Your task to perform on an android device: Add dell alienware to the cart on target.com Image 0: 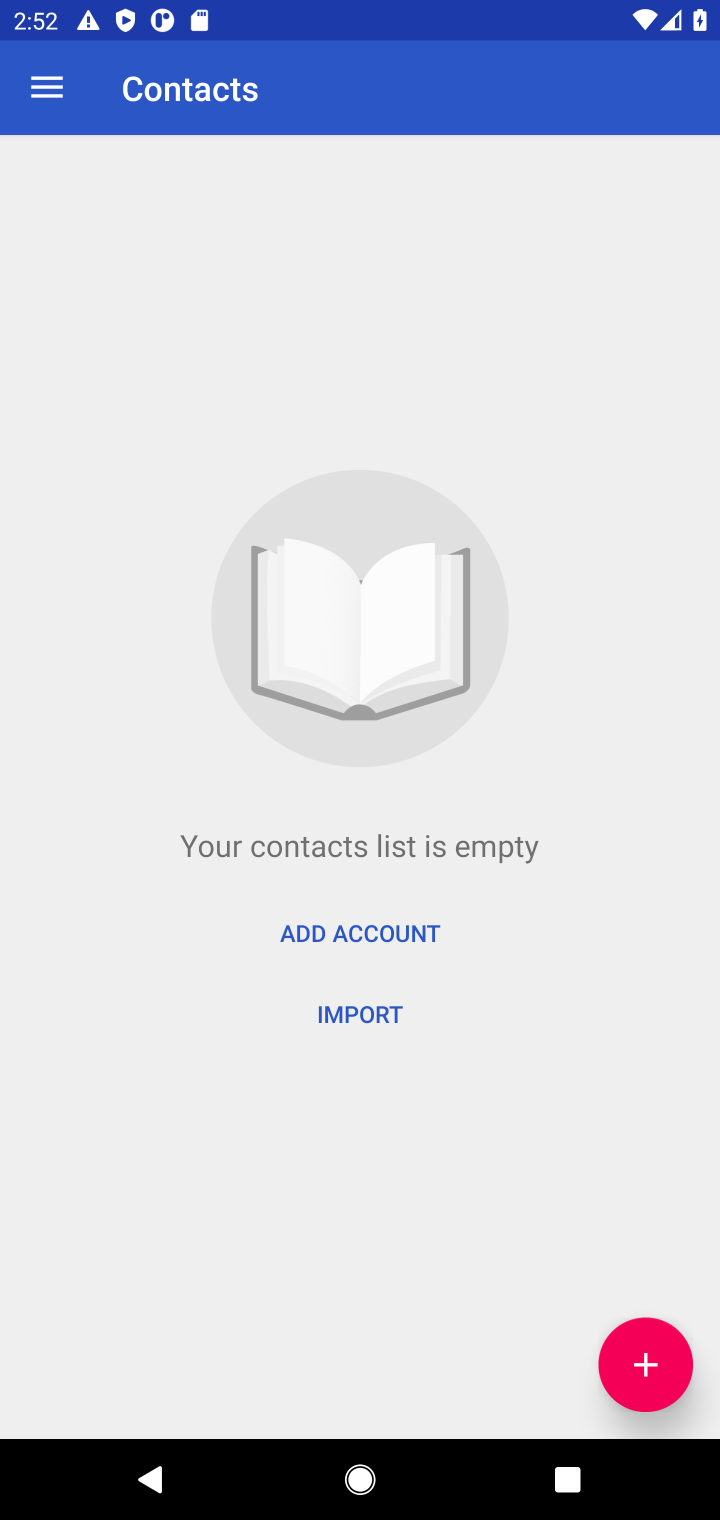
Step 0: press home button
Your task to perform on an android device: Add dell alienware to the cart on target.com Image 1: 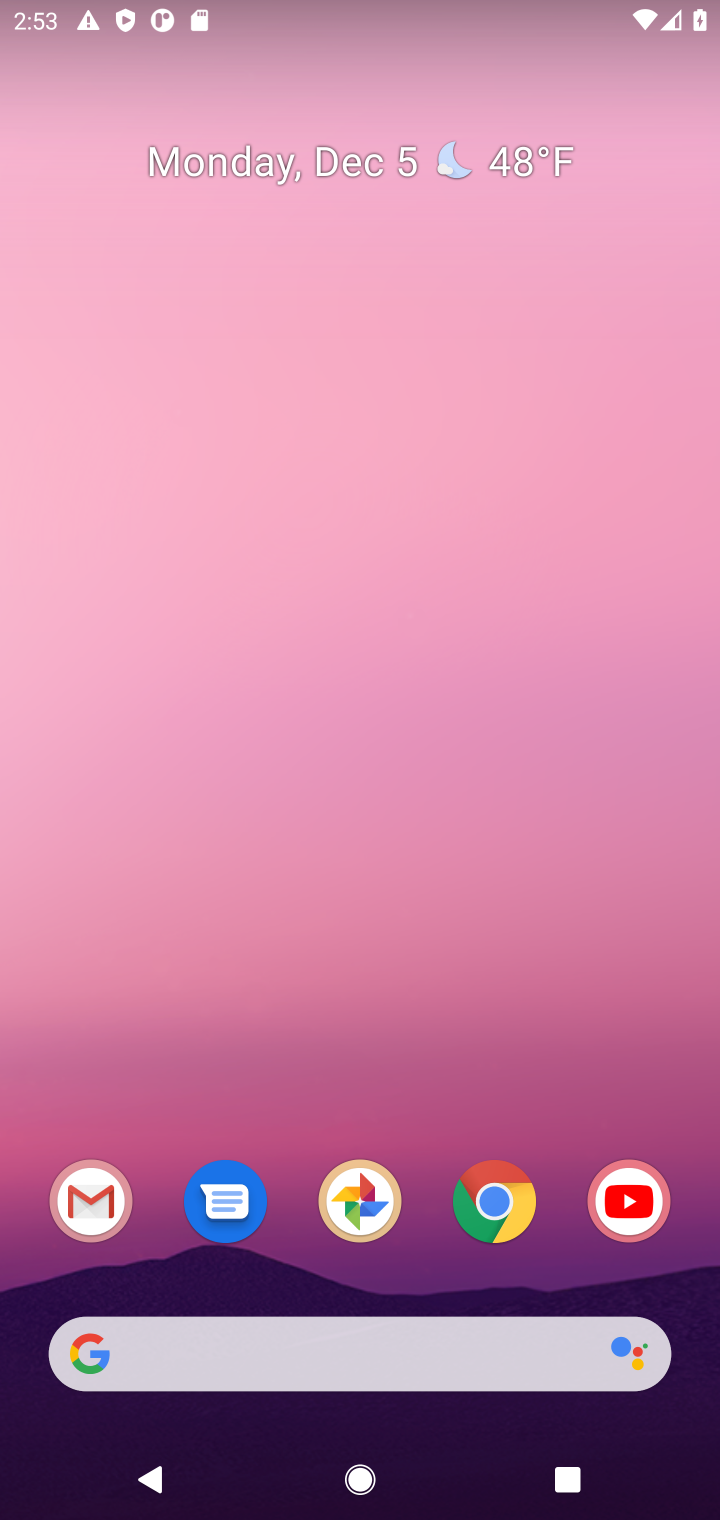
Step 1: click (478, 1189)
Your task to perform on an android device: Add dell alienware to the cart on target.com Image 2: 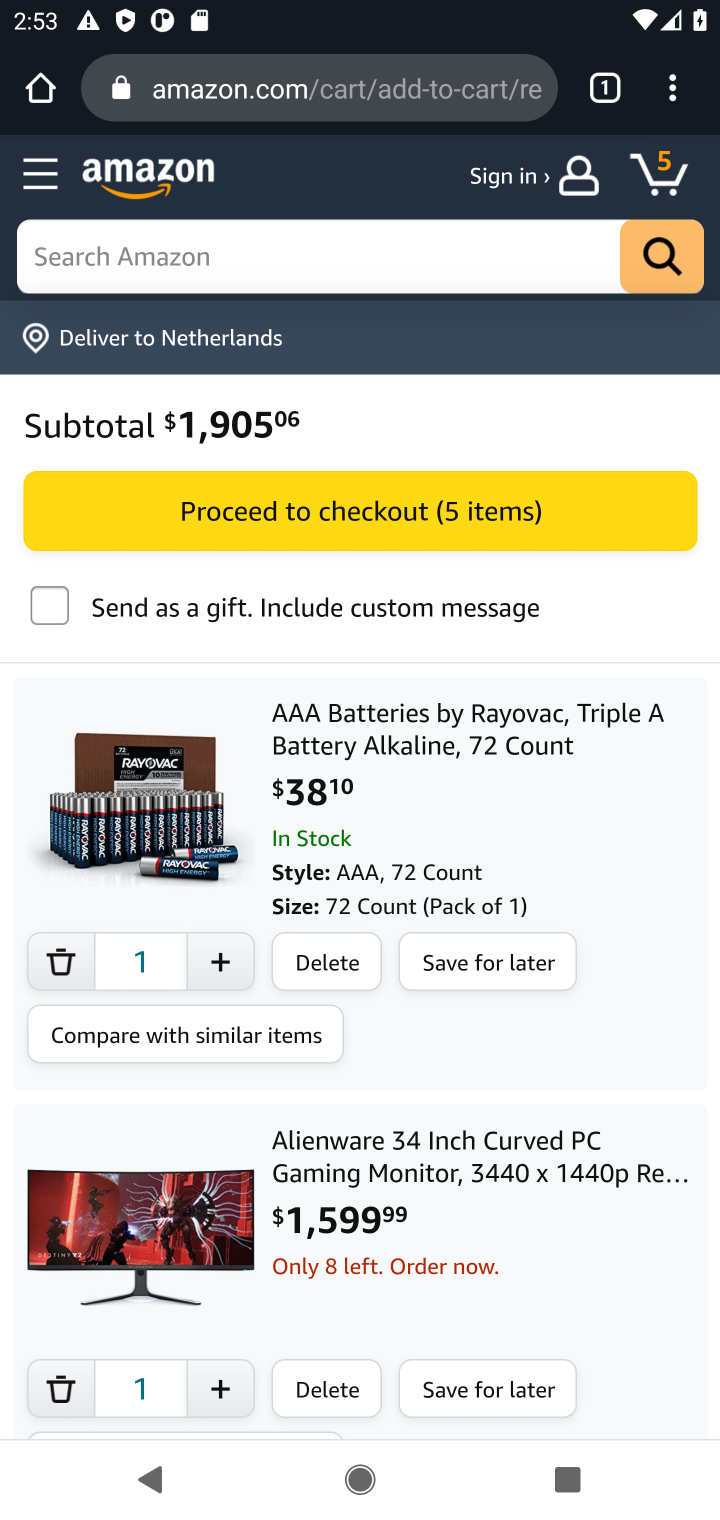
Step 2: click (301, 84)
Your task to perform on an android device: Add dell alienware to the cart on target.com Image 3: 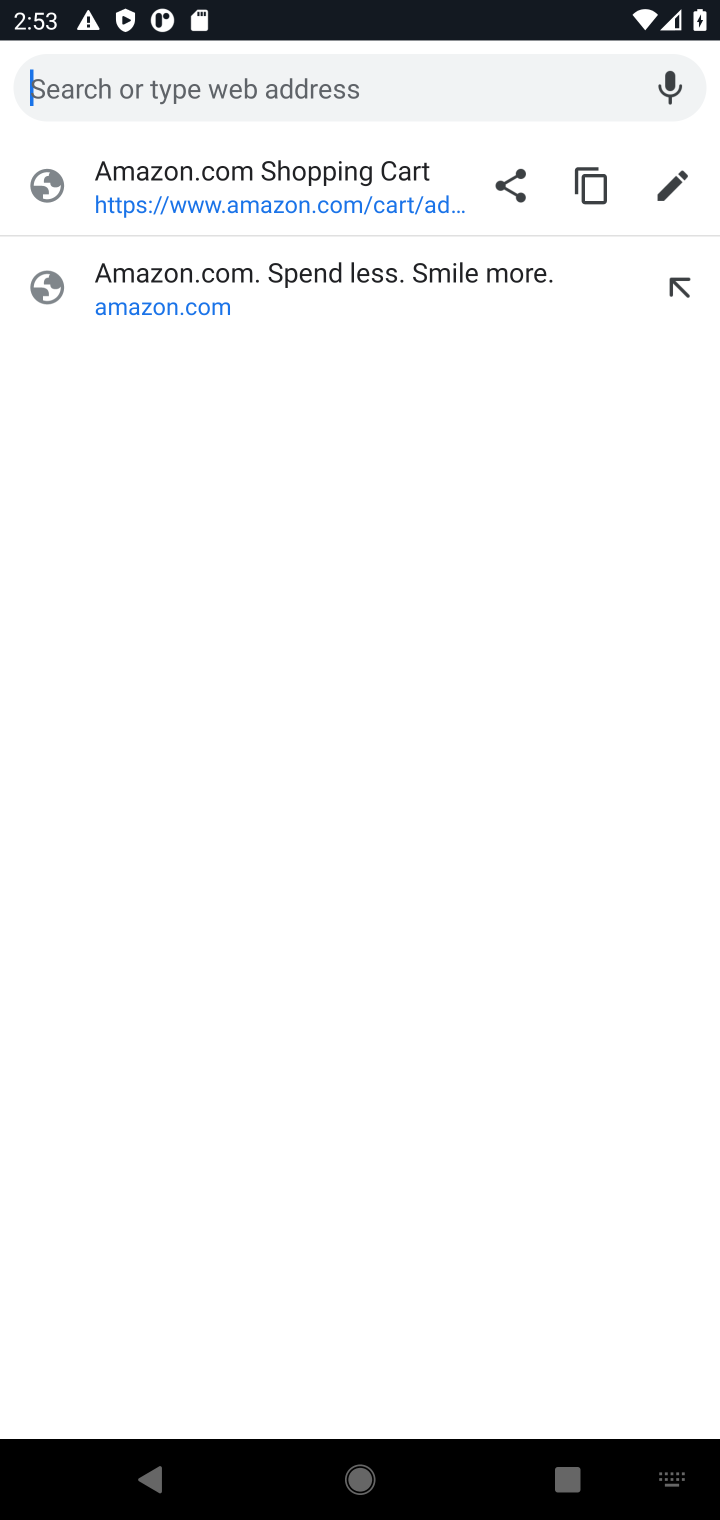
Step 3: type "target"
Your task to perform on an android device: Add dell alienware to the cart on target.com Image 4: 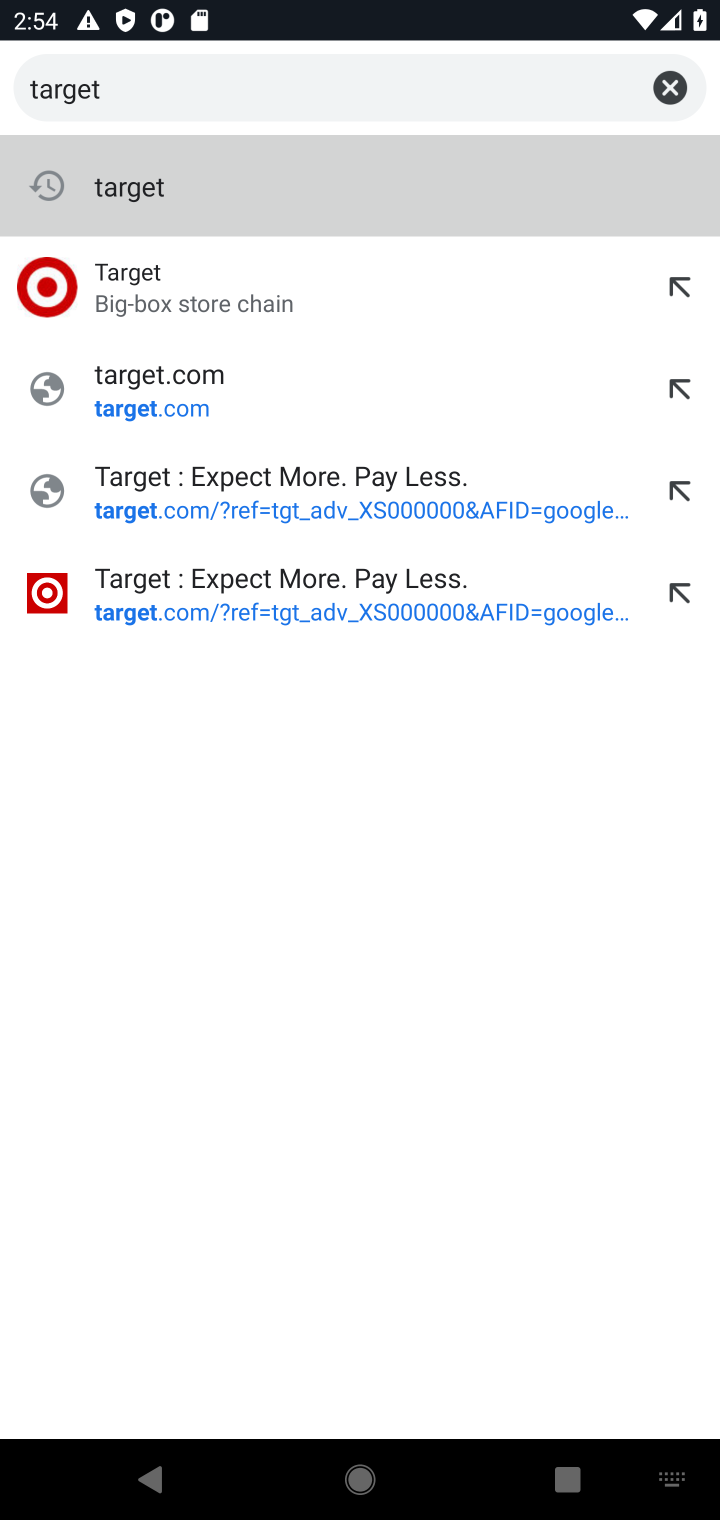
Step 4: click (219, 299)
Your task to perform on an android device: Add dell alienware to the cart on target.com Image 5: 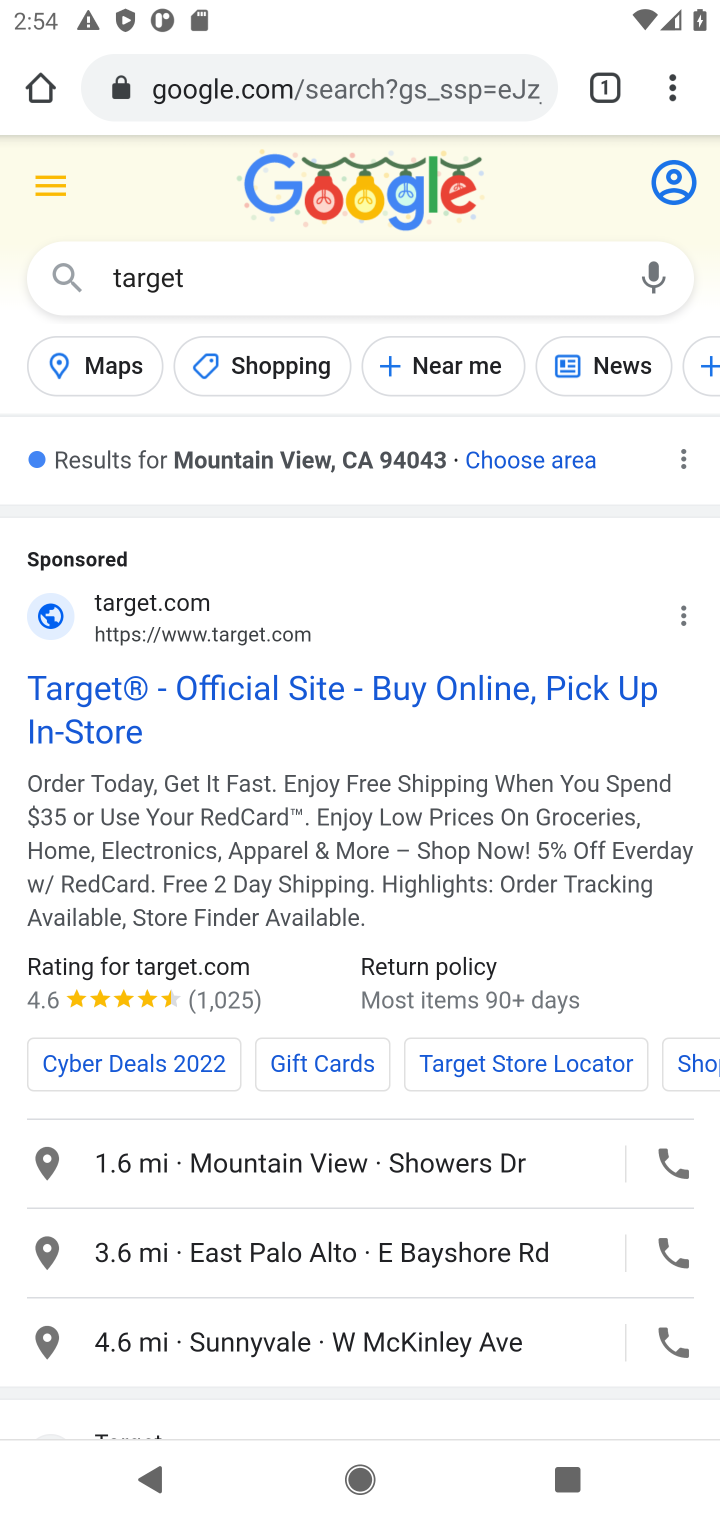
Step 5: click (435, 688)
Your task to perform on an android device: Add dell alienware to the cart on target.com Image 6: 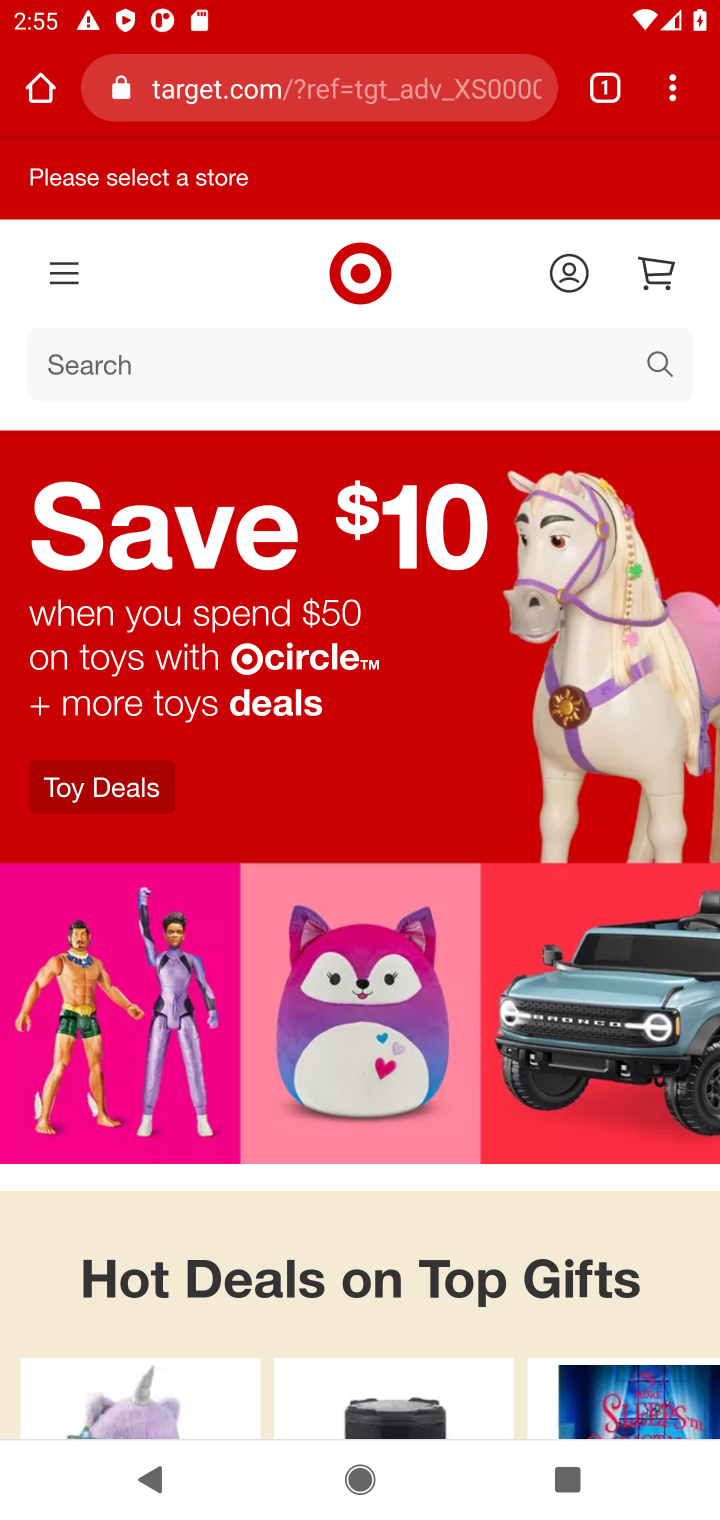
Step 6: click (578, 360)
Your task to perform on an android device: Add dell alienware to the cart on target.com Image 7: 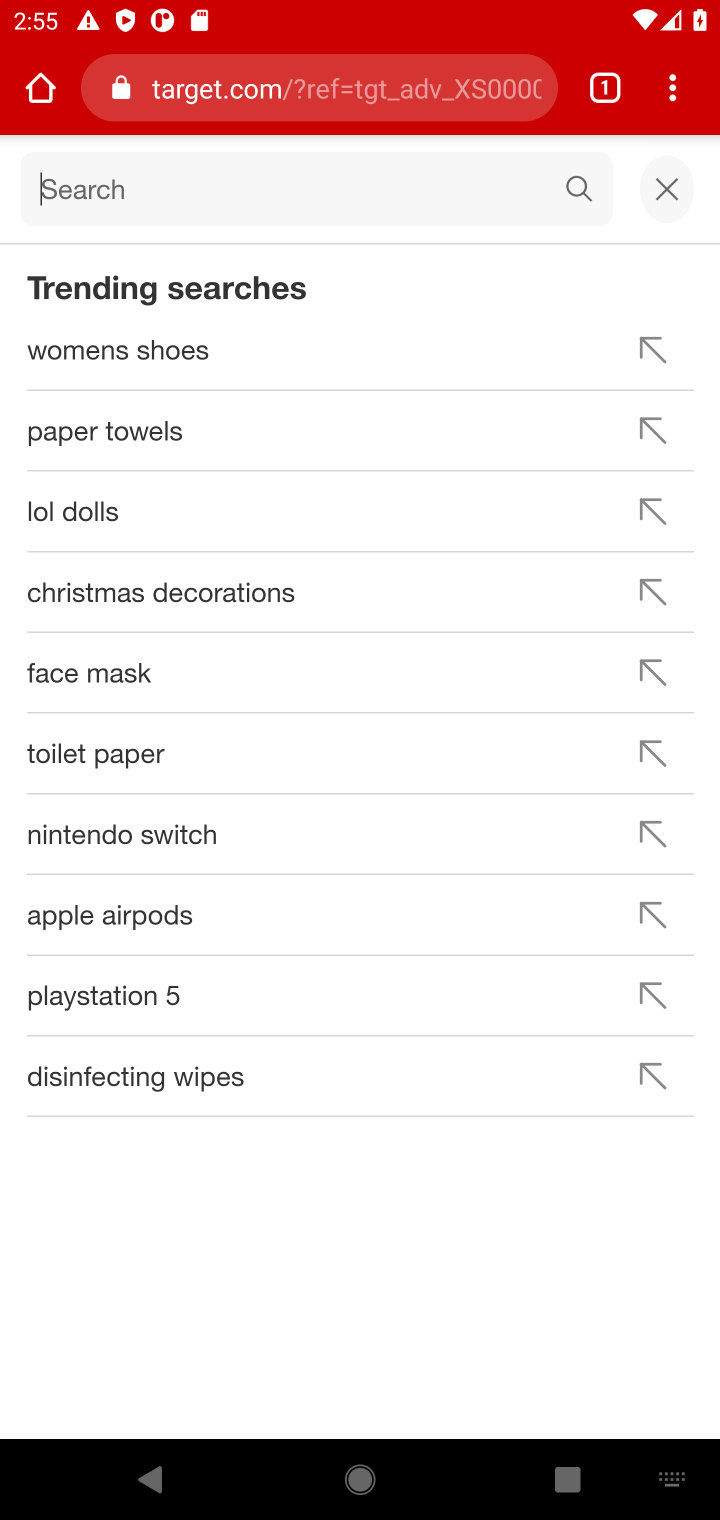
Step 7: type "dell alienware"
Your task to perform on an android device: Add dell alienware to the cart on target.com Image 8: 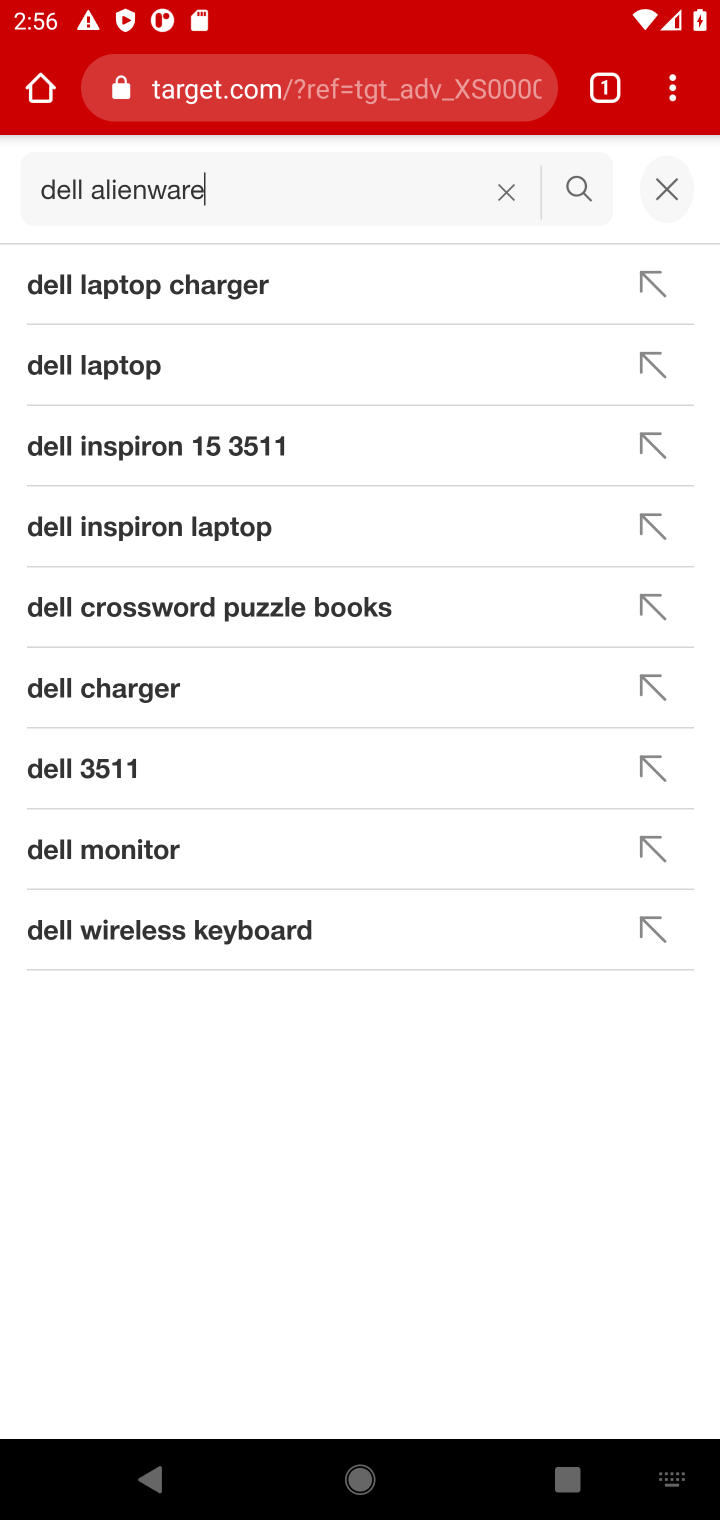
Step 8: task complete